Your task to perform on an android device: Open Yahoo.com Image 0: 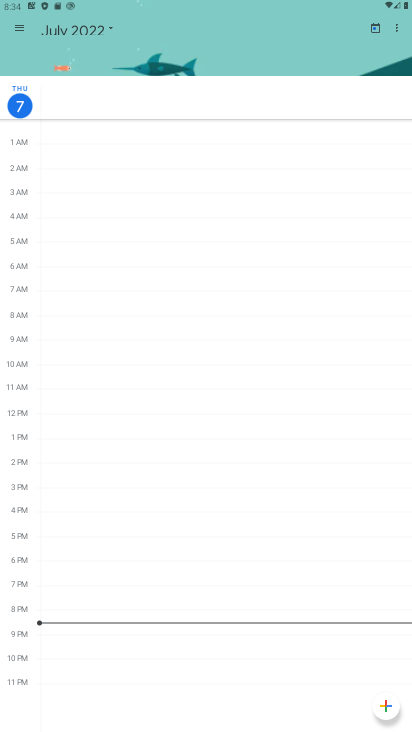
Step 0: press home button
Your task to perform on an android device: Open Yahoo.com Image 1: 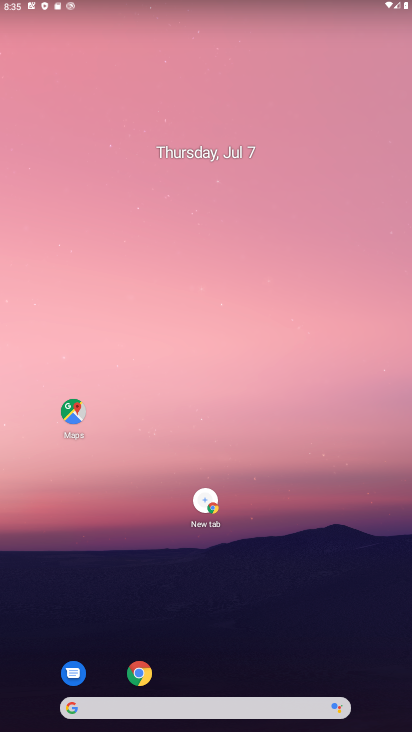
Step 1: click (122, 706)
Your task to perform on an android device: Open Yahoo.com Image 2: 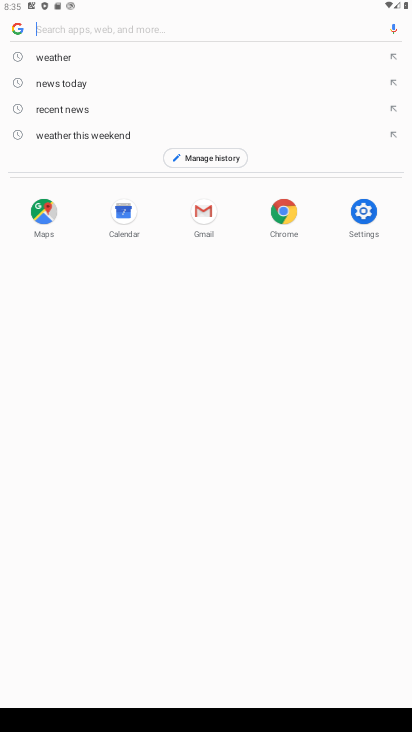
Step 2: type "Yahoo.com"
Your task to perform on an android device: Open Yahoo.com Image 3: 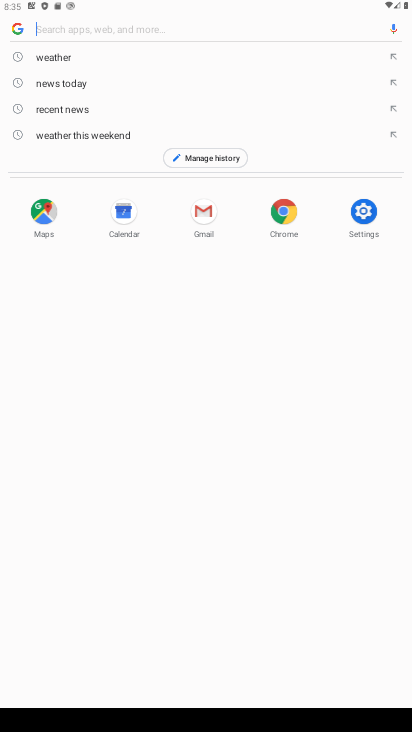
Step 3: click (67, 29)
Your task to perform on an android device: Open Yahoo.com Image 4: 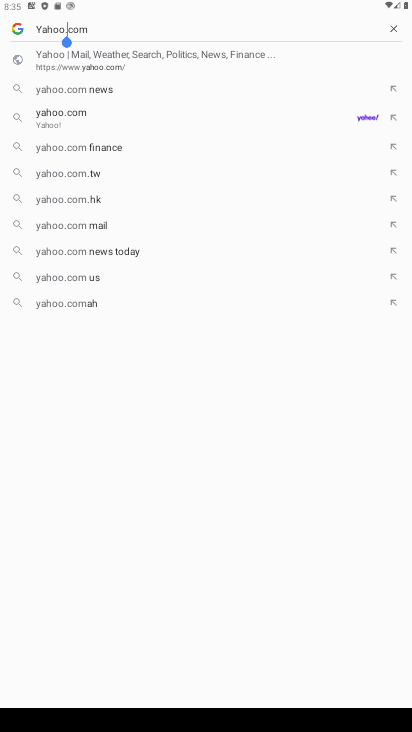
Step 4: click (74, 108)
Your task to perform on an android device: Open Yahoo.com Image 5: 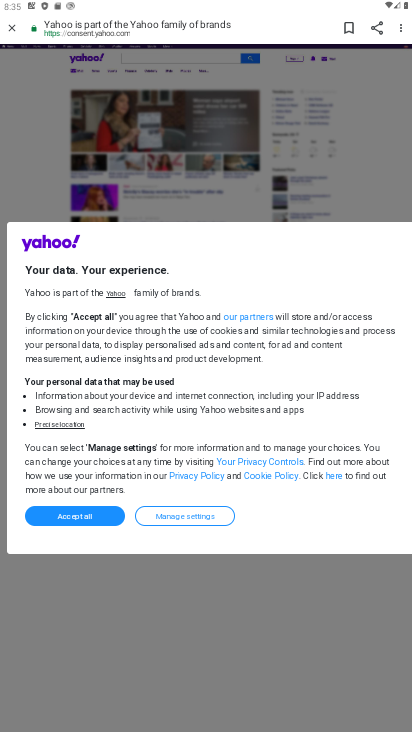
Step 5: click (70, 511)
Your task to perform on an android device: Open Yahoo.com Image 6: 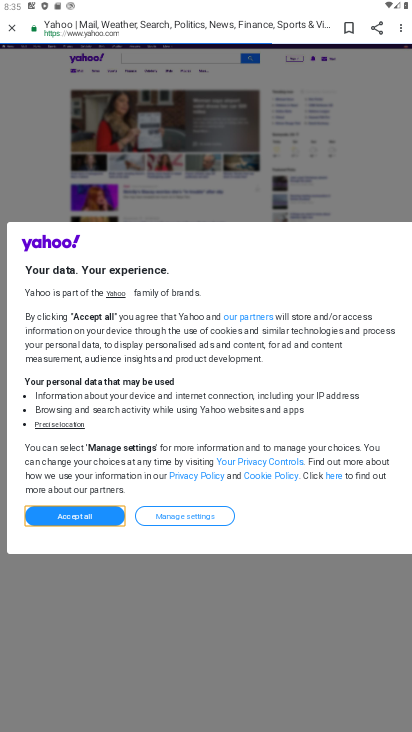
Step 6: click (95, 516)
Your task to perform on an android device: Open Yahoo.com Image 7: 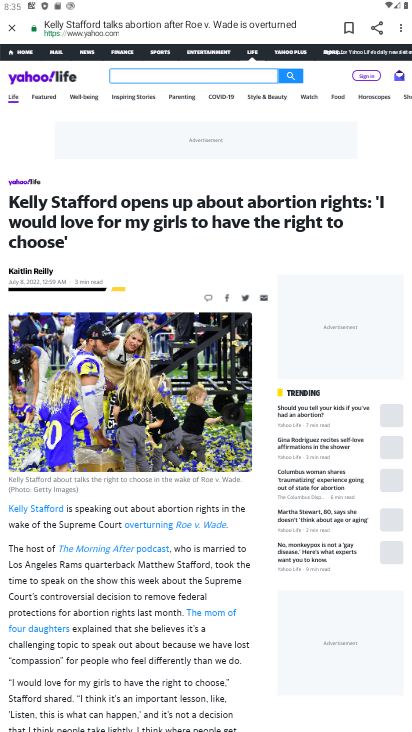
Step 7: task complete